Your task to perform on an android device: View the shopping cart on costco. Search for usb-c to usb-b on costco, select the first entry, and add it to the cart. Image 0: 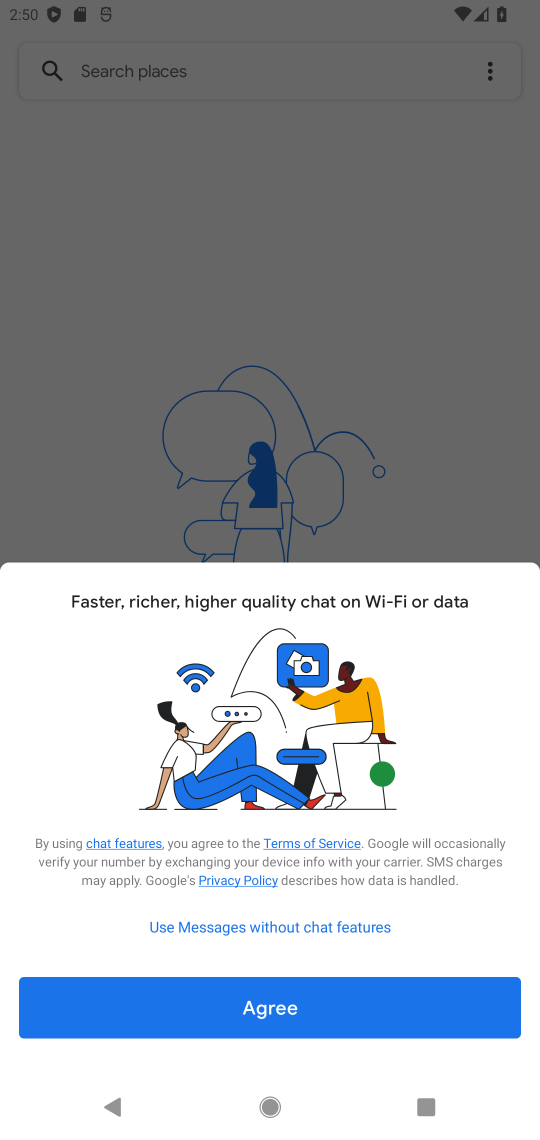
Step 0: press home button
Your task to perform on an android device: View the shopping cart on costco. Search for usb-c to usb-b on costco, select the first entry, and add it to the cart. Image 1: 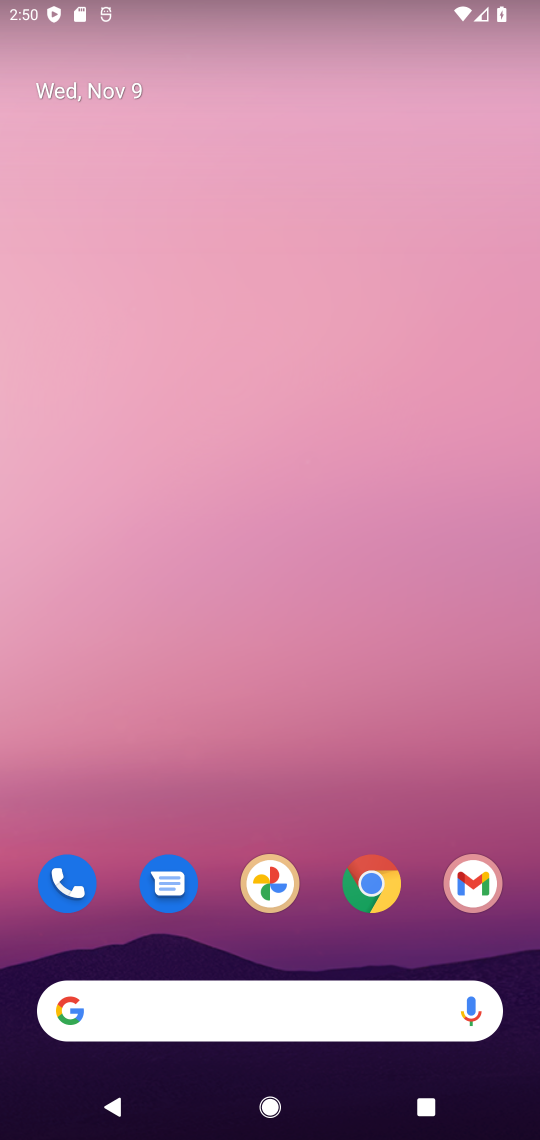
Step 1: click (378, 879)
Your task to perform on an android device: View the shopping cart on costco. Search for usb-c to usb-b on costco, select the first entry, and add it to the cart. Image 2: 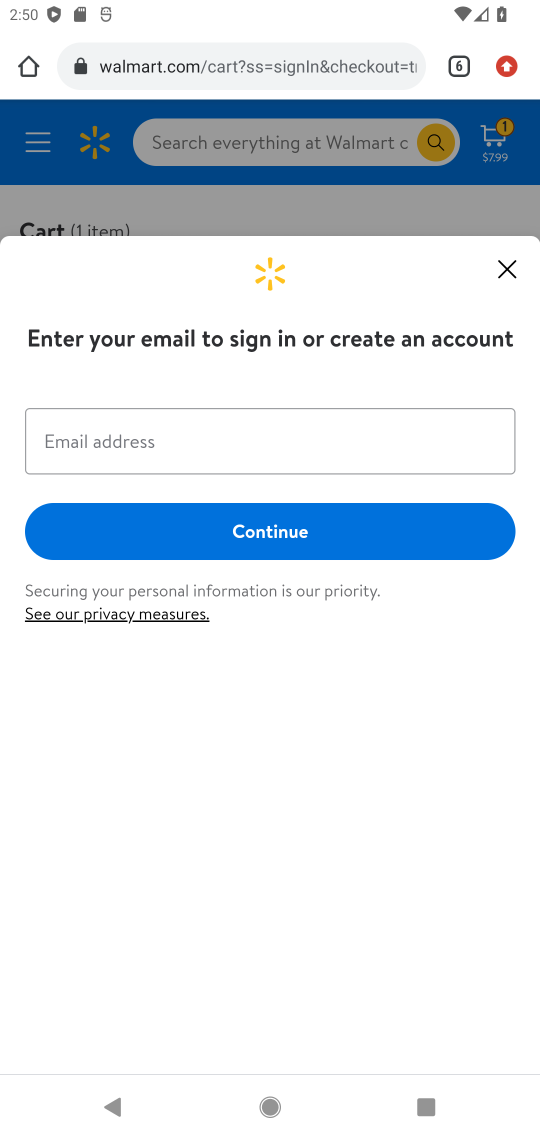
Step 2: click (460, 53)
Your task to perform on an android device: View the shopping cart on costco. Search for usb-c to usb-b on costco, select the first entry, and add it to the cart. Image 3: 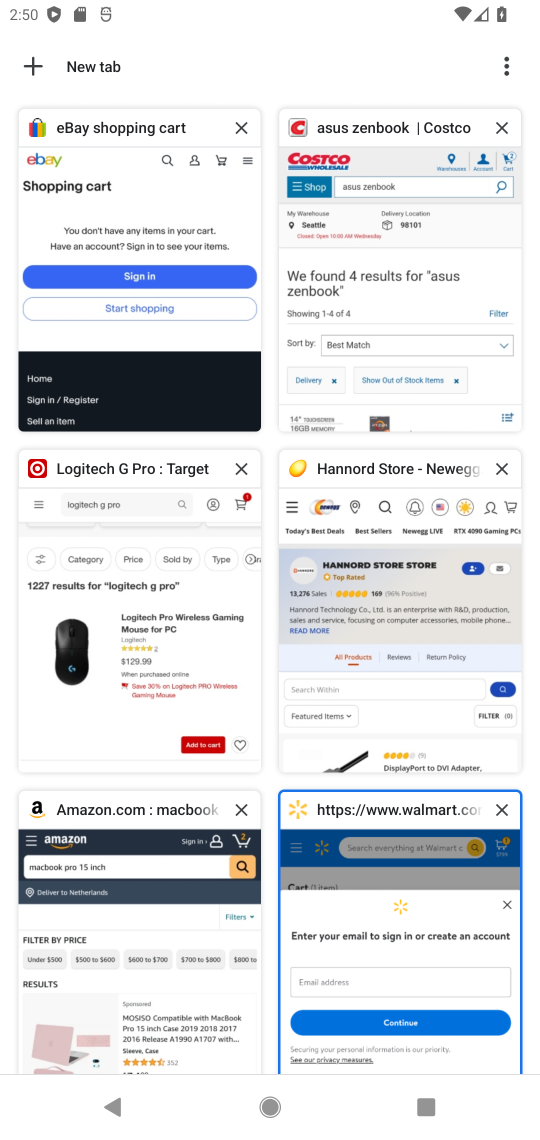
Step 3: click (401, 243)
Your task to perform on an android device: View the shopping cart on costco. Search for usb-c to usb-b on costco, select the first entry, and add it to the cart. Image 4: 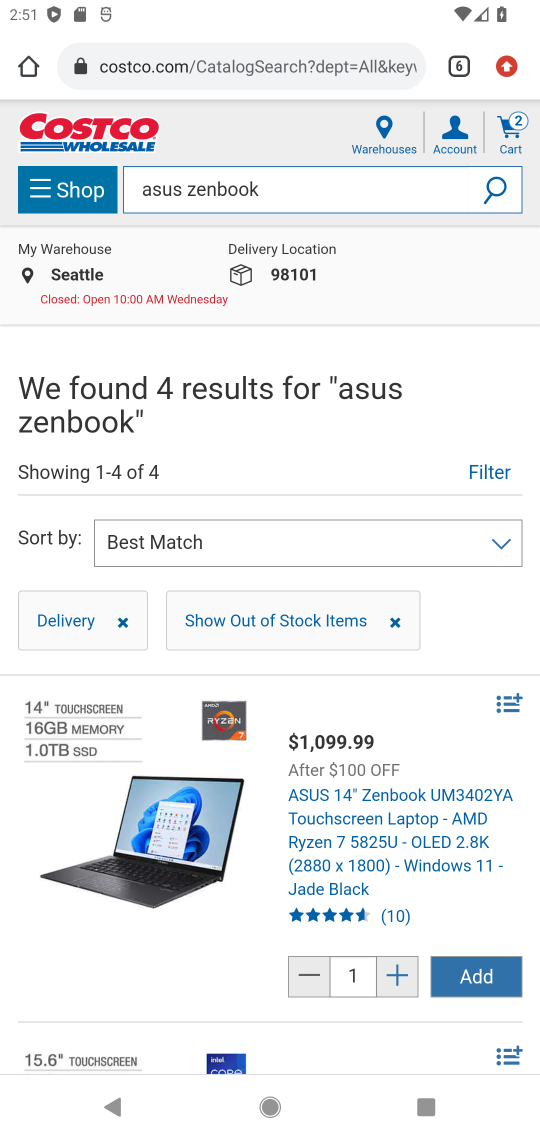
Step 4: click (213, 193)
Your task to perform on an android device: View the shopping cart on costco. Search for usb-c to usb-b on costco, select the first entry, and add it to the cart. Image 5: 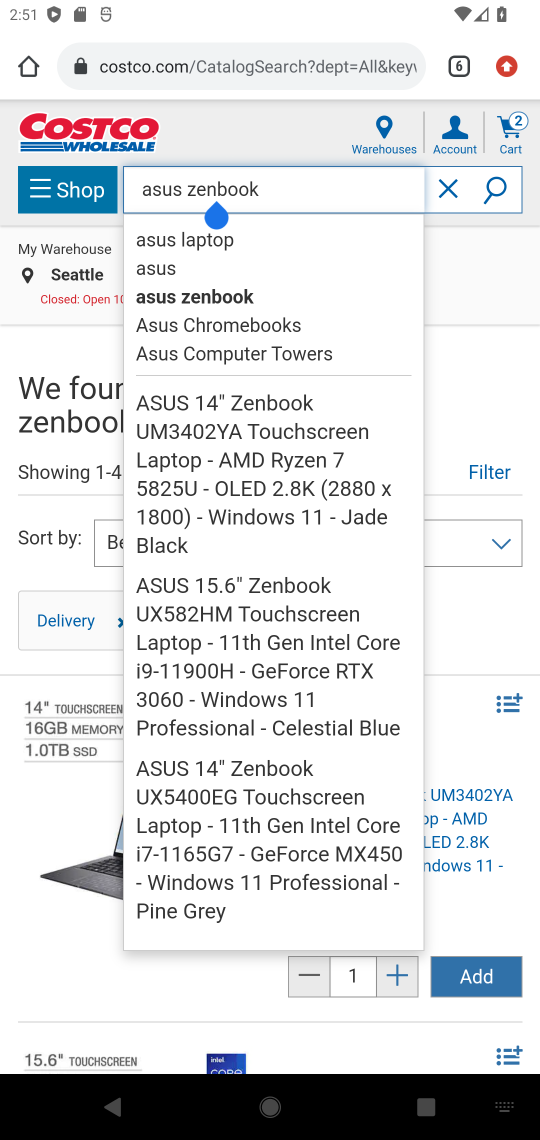
Step 5: click (456, 187)
Your task to perform on an android device: View the shopping cart on costco. Search for usb-c to usb-b on costco, select the first entry, and add it to the cart. Image 6: 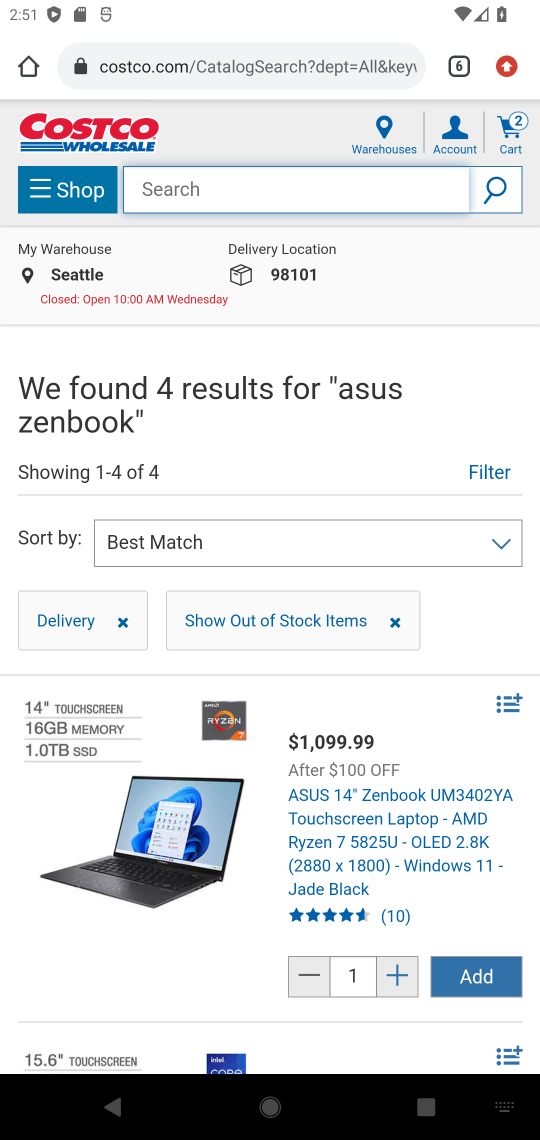
Step 6: type "usb-c to usb-b"
Your task to perform on an android device: View the shopping cart on costco. Search for usb-c to usb-b on costco, select the first entry, and add it to the cart. Image 7: 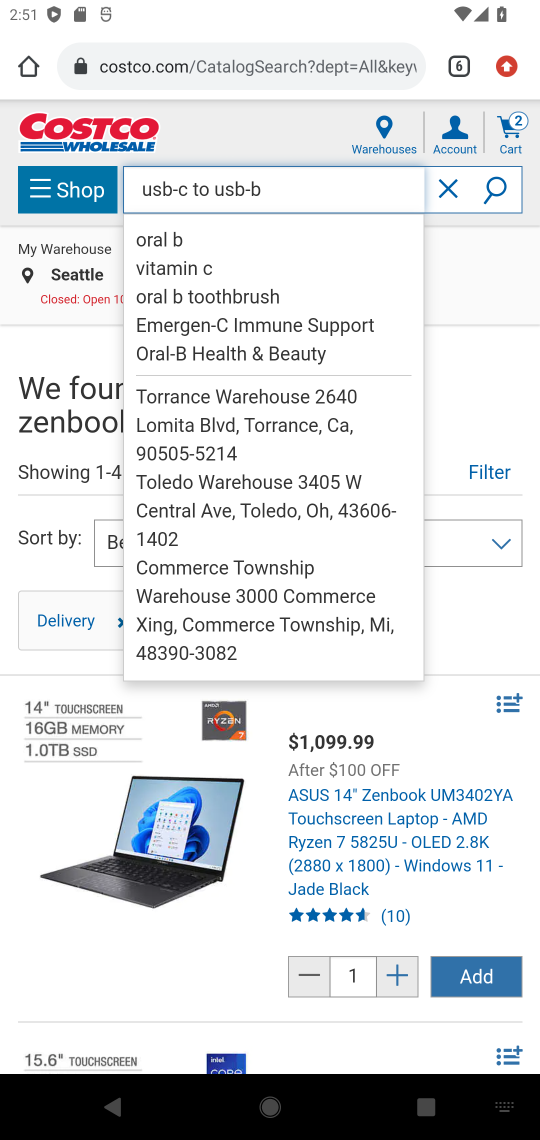
Step 7: click (498, 187)
Your task to perform on an android device: View the shopping cart on costco. Search for usb-c to usb-b on costco, select the first entry, and add it to the cart. Image 8: 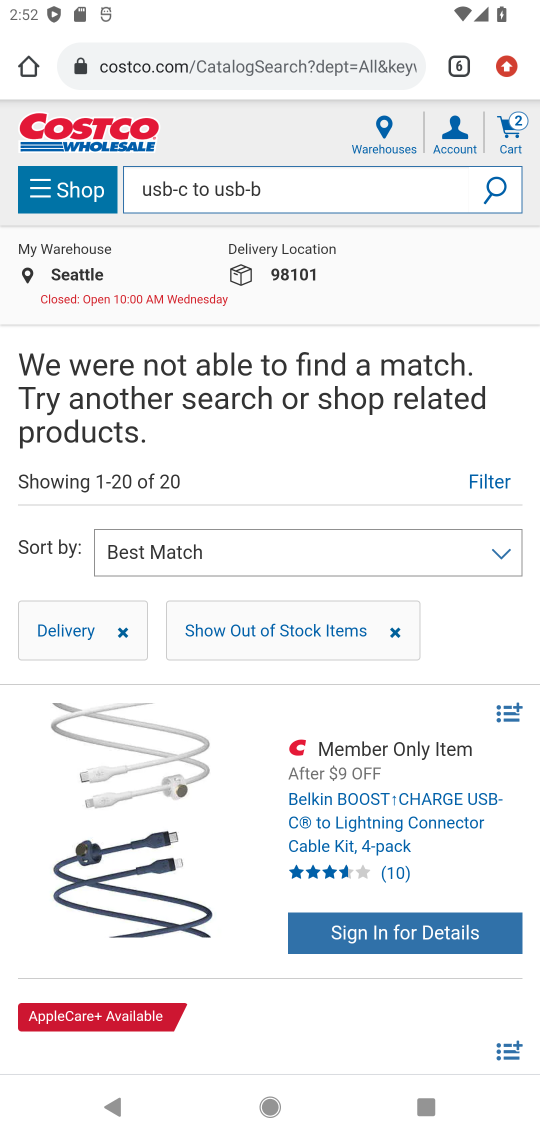
Step 8: drag from (259, 1016) to (239, 520)
Your task to perform on an android device: View the shopping cart on costco. Search for usb-c to usb-b on costco, select the first entry, and add it to the cart. Image 9: 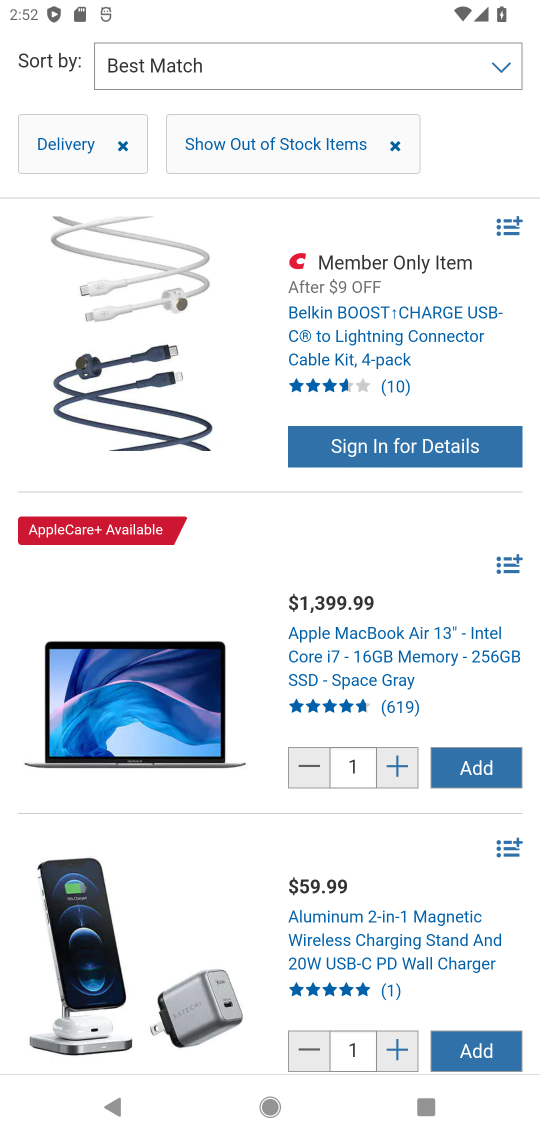
Step 9: drag from (250, 855) to (266, 632)
Your task to perform on an android device: View the shopping cart on costco. Search for usb-c to usb-b on costco, select the first entry, and add it to the cart. Image 10: 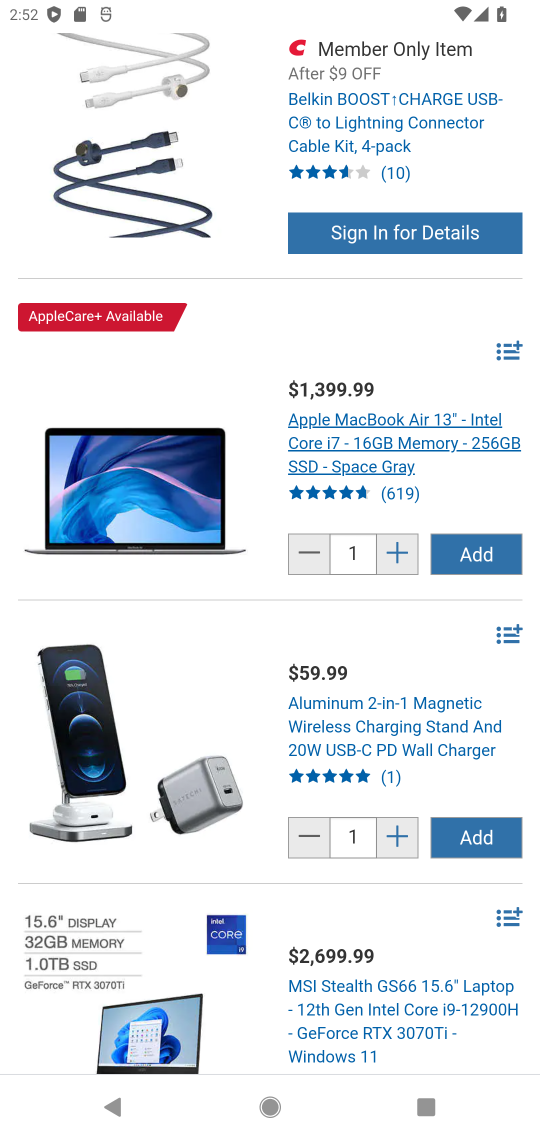
Step 10: click (421, 137)
Your task to perform on an android device: View the shopping cart on costco. Search for usb-c to usb-b on costco, select the first entry, and add it to the cart. Image 11: 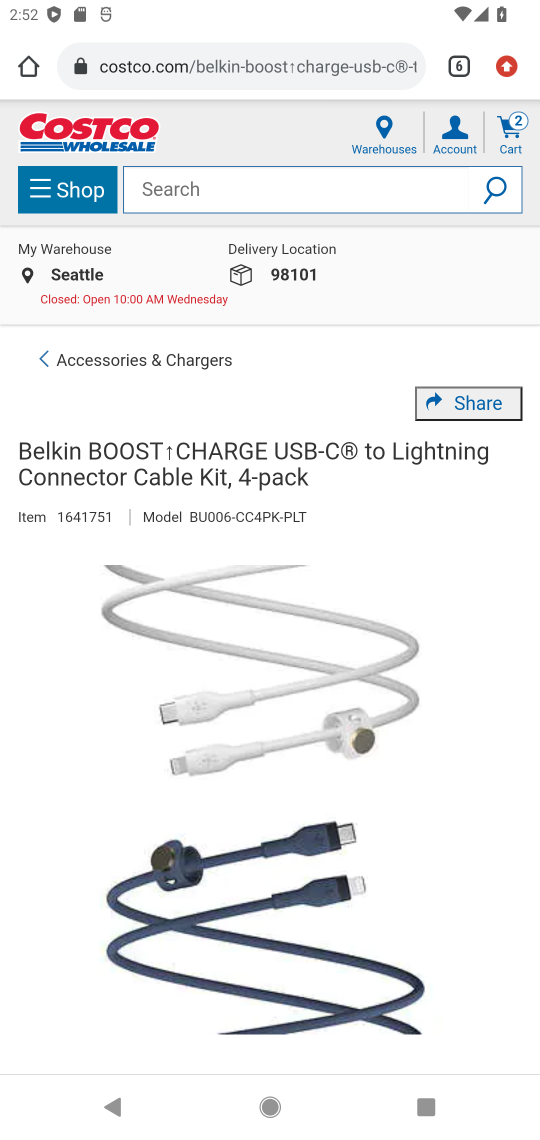
Step 11: task complete